Your task to perform on an android device: Open Google Maps and go to "Timeline" Image 0: 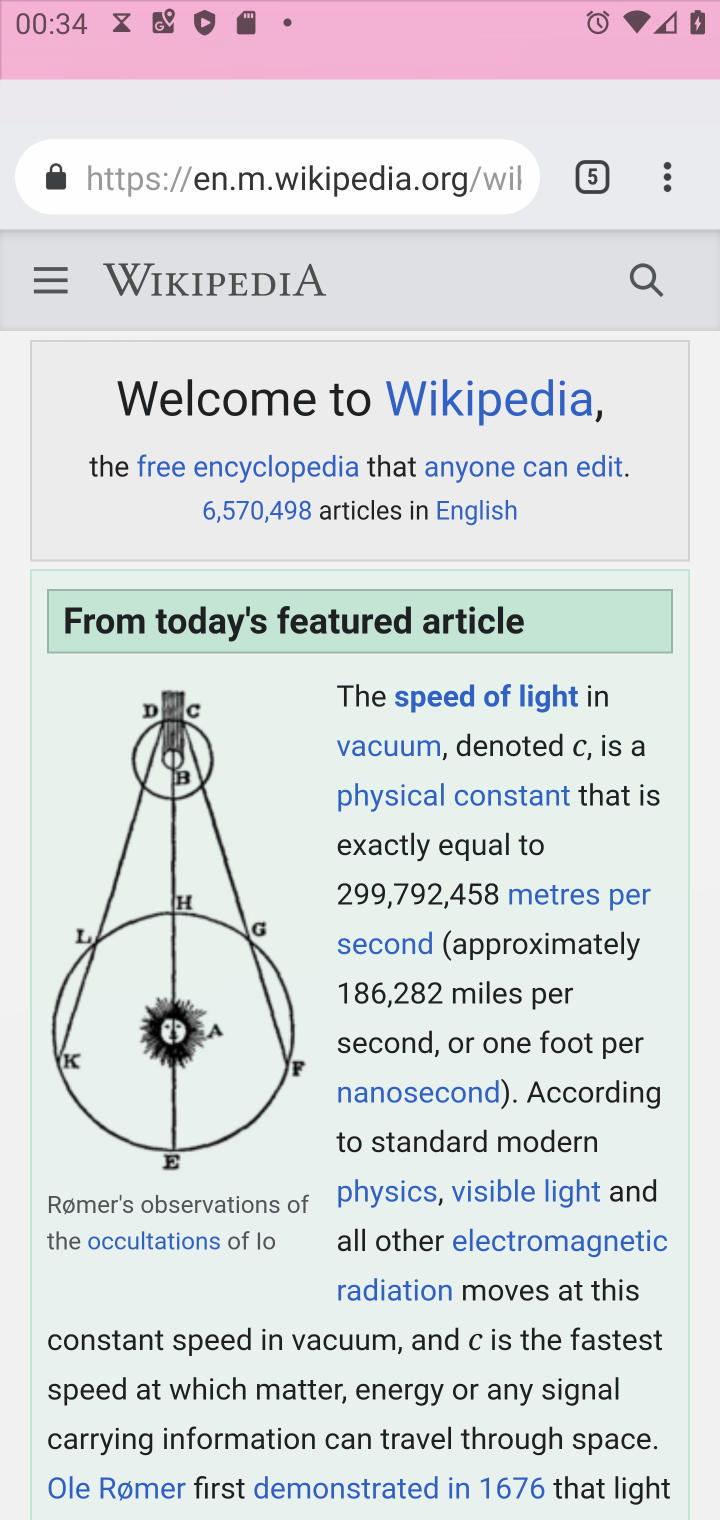
Step 0: press home button
Your task to perform on an android device: Open Google Maps and go to "Timeline" Image 1: 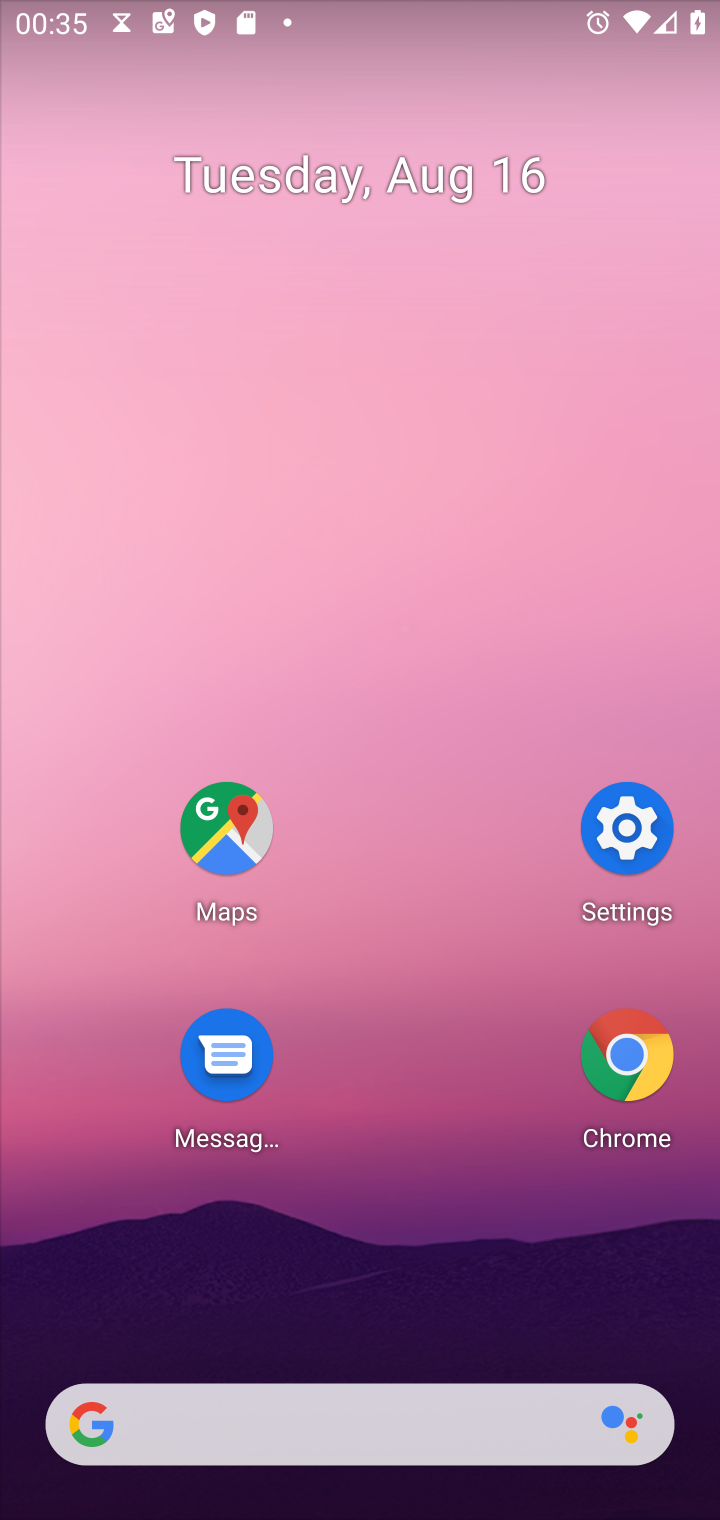
Step 1: click (218, 834)
Your task to perform on an android device: Open Google Maps and go to "Timeline" Image 2: 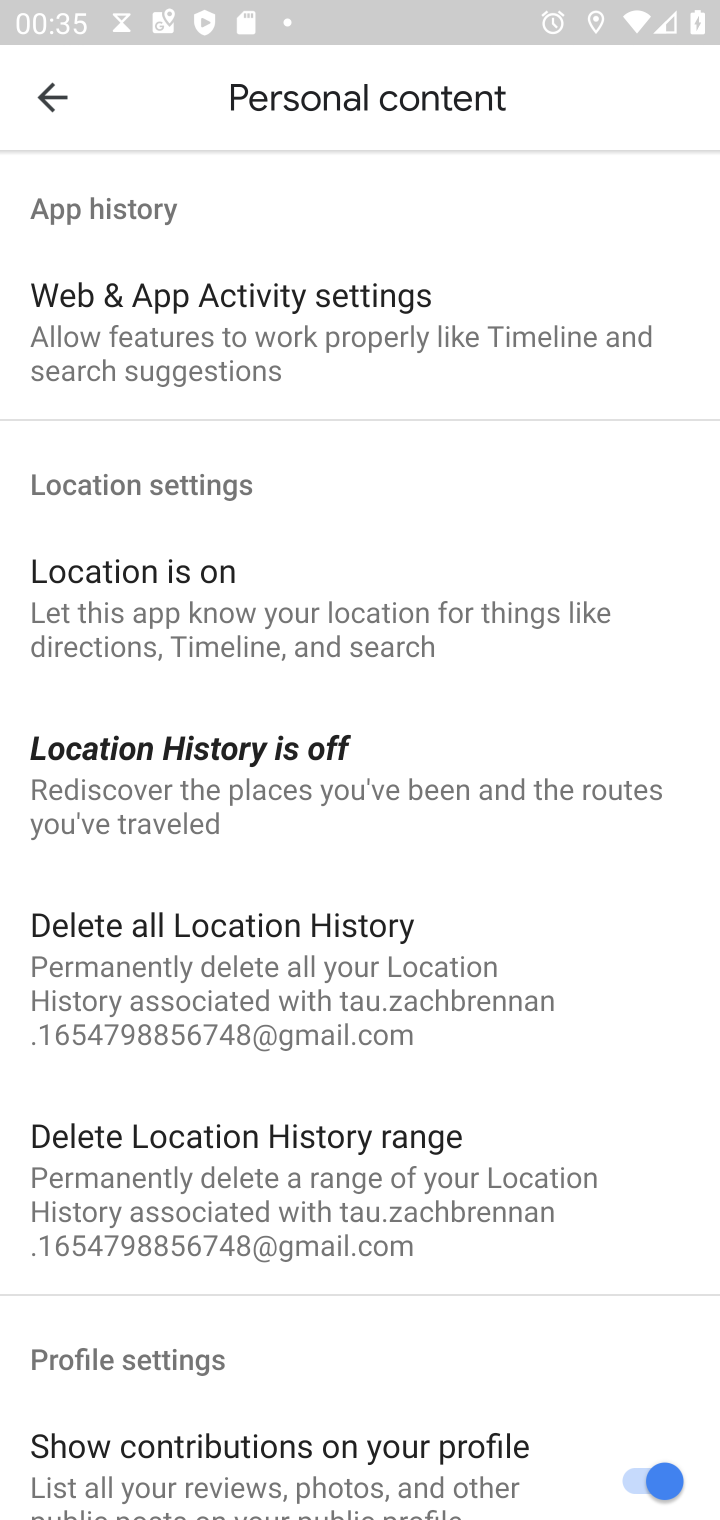
Step 2: task complete